Your task to perform on an android device: Open settings on Google Maps Image 0: 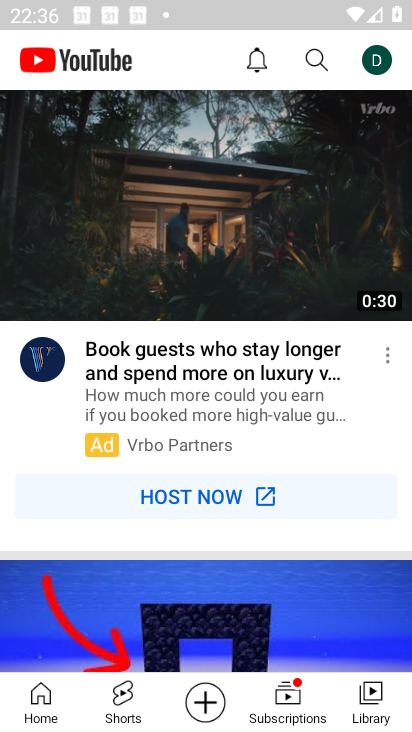
Step 0: press home button
Your task to perform on an android device: Open settings on Google Maps Image 1: 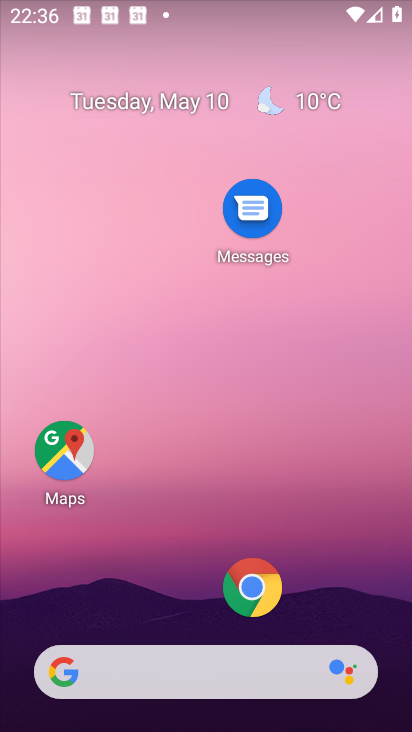
Step 1: click (59, 430)
Your task to perform on an android device: Open settings on Google Maps Image 2: 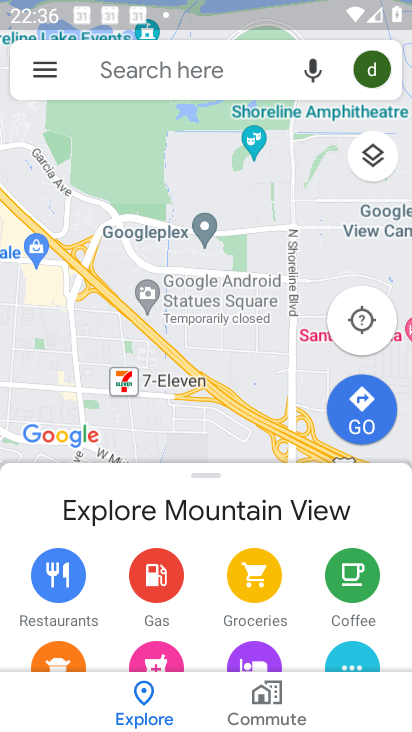
Step 2: click (45, 66)
Your task to perform on an android device: Open settings on Google Maps Image 3: 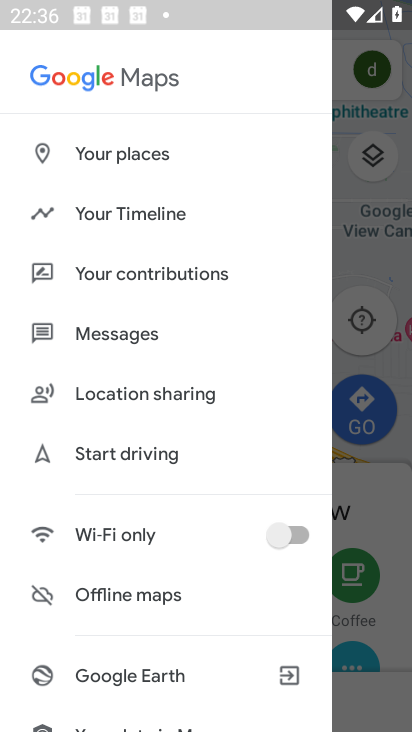
Step 3: drag from (137, 613) to (221, 274)
Your task to perform on an android device: Open settings on Google Maps Image 4: 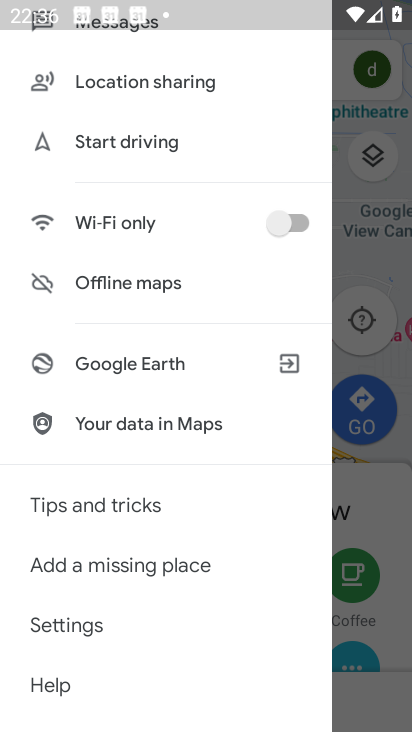
Step 4: click (100, 622)
Your task to perform on an android device: Open settings on Google Maps Image 5: 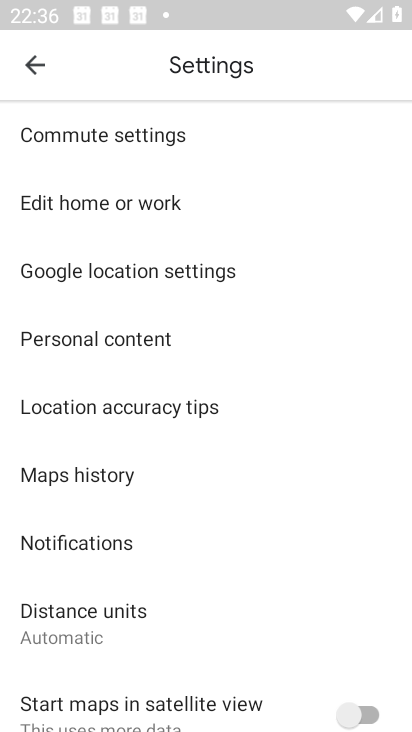
Step 5: task complete